Your task to perform on an android device: set the timer Image 0: 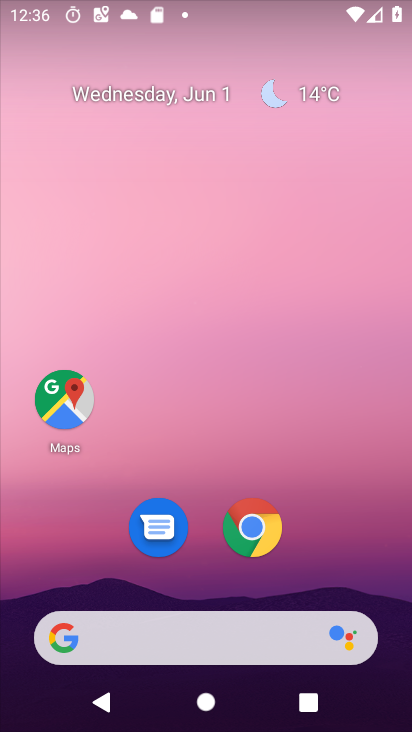
Step 0: drag from (336, 598) to (298, 15)
Your task to perform on an android device: set the timer Image 1: 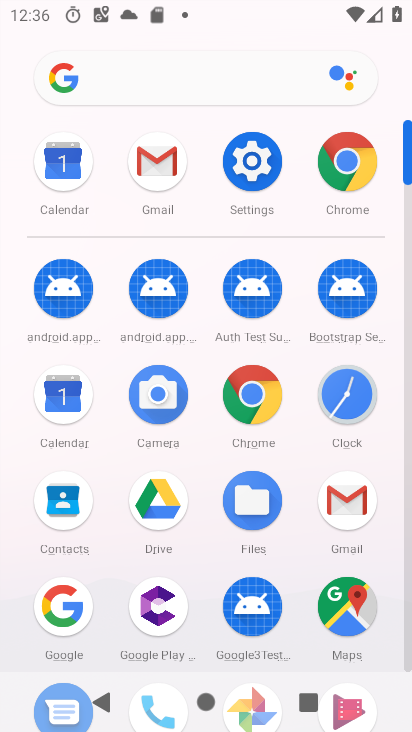
Step 1: click (331, 395)
Your task to perform on an android device: set the timer Image 2: 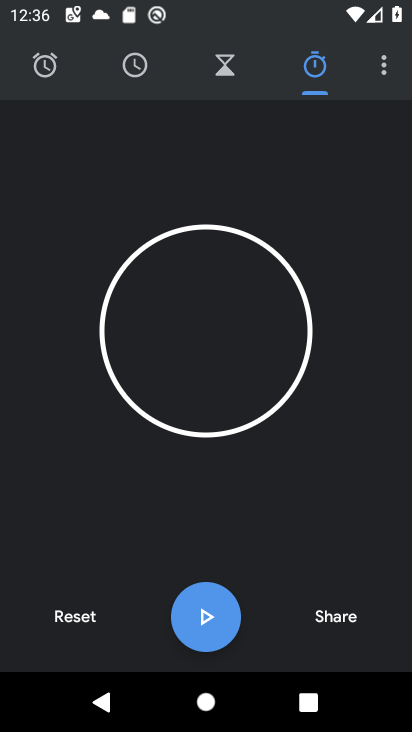
Step 2: click (226, 71)
Your task to perform on an android device: set the timer Image 3: 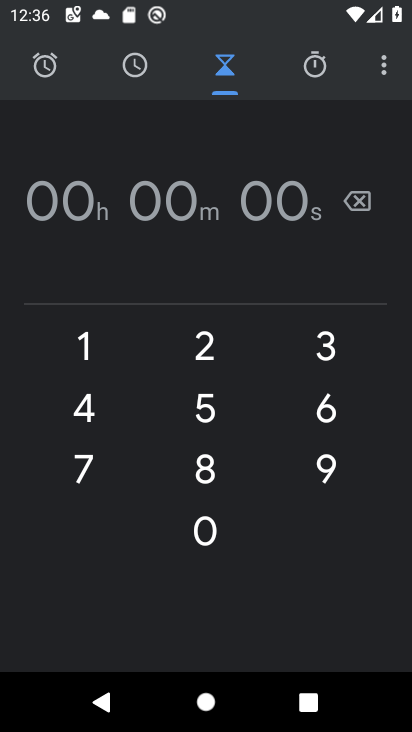
Step 3: click (198, 356)
Your task to perform on an android device: set the timer Image 4: 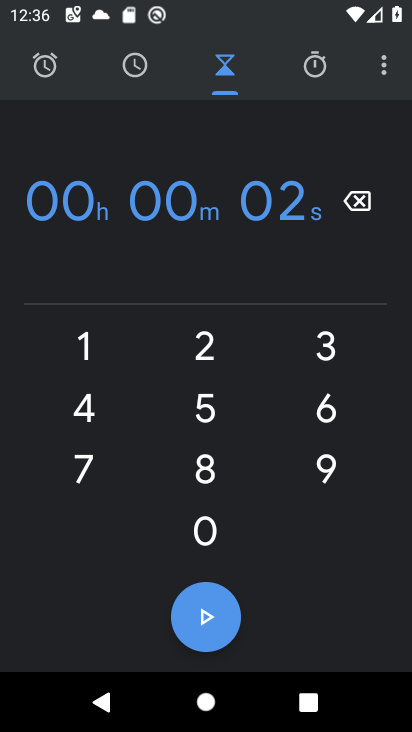
Step 4: click (211, 534)
Your task to perform on an android device: set the timer Image 5: 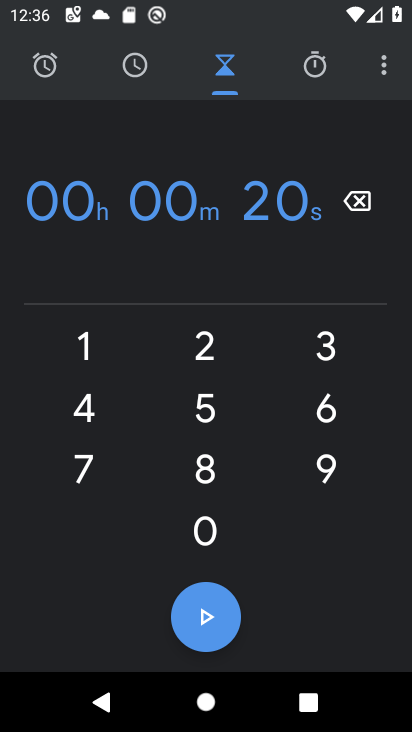
Step 5: click (223, 620)
Your task to perform on an android device: set the timer Image 6: 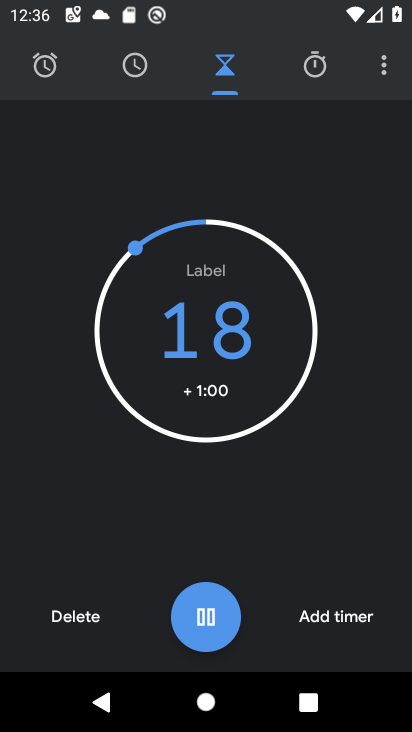
Step 6: task complete